Your task to perform on an android device: Go to sound settings Image 0: 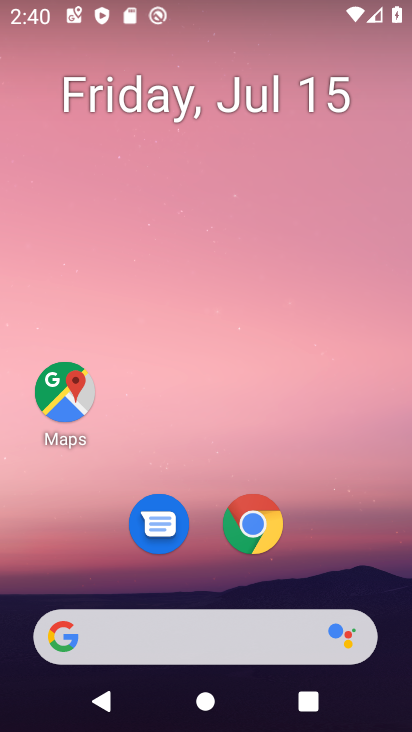
Step 0: drag from (177, 642) to (292, 86)
Your task to perform on an android device: Go to sound settings Image 1: 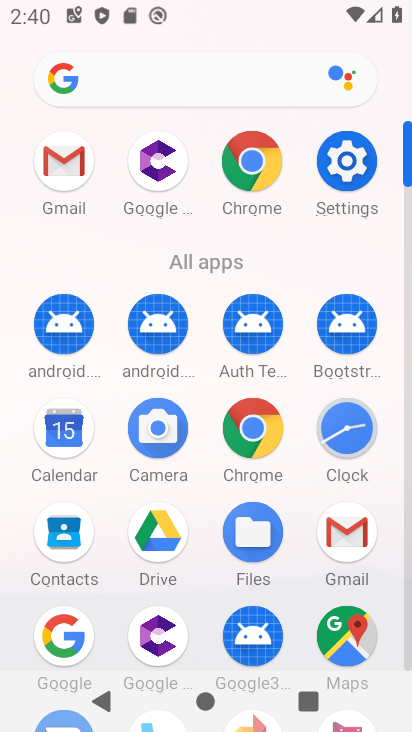
Step 1: click (343, 170)
Your task to perform on an android device: Go to sound settings Image 2: 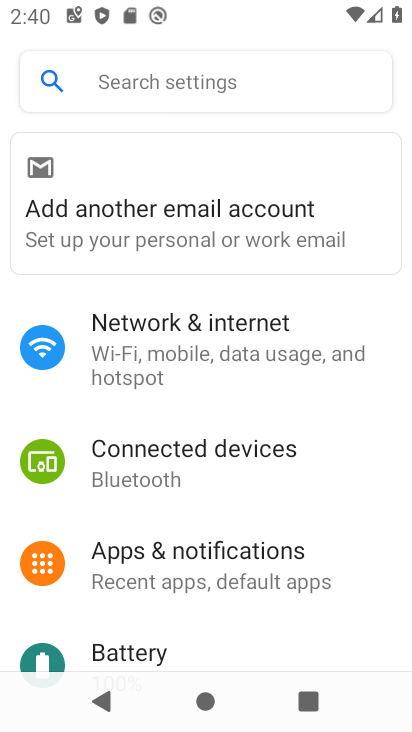
Step 2: drag from (314, 617) to (306, 189)
Your task to perform on an android device: Go to sound settings Image 3: 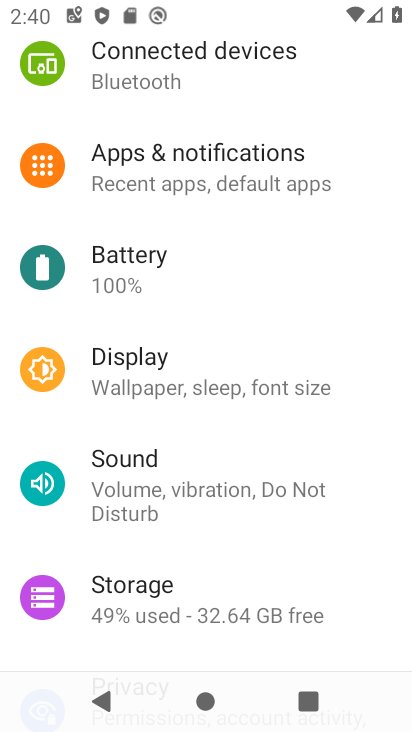
Step 3: click (159, 483)
Your task to perform on an android device: Go to sound settings Image 4: 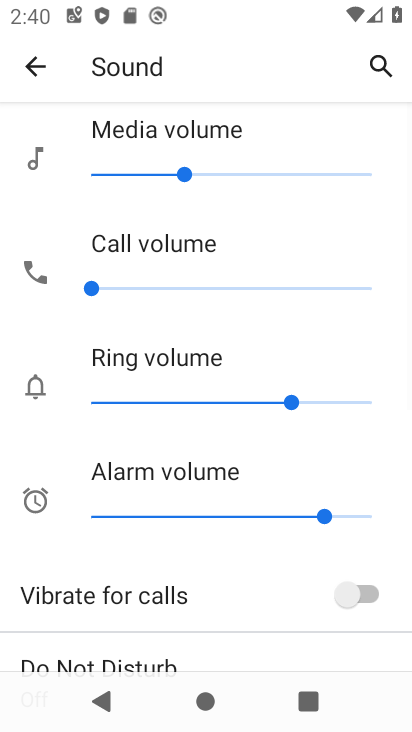
Step 4: task complete